Your task to perform on an android device: Open Google Image 0: 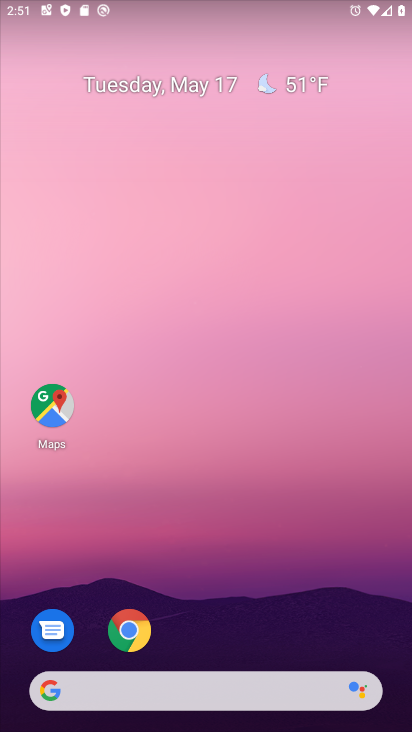
Step 0: drag from (213, 597) to (280, 166)
Your task to perform on an android device: Open Google Image 1: 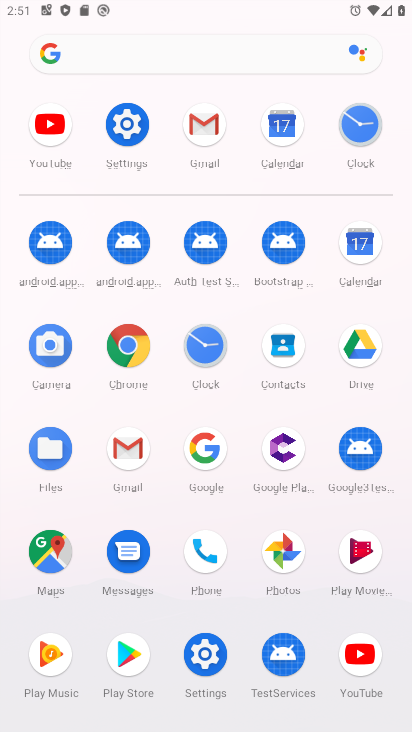
Step 1: click (207, 453)
Your task to perform on an android device: Open Google Image 2: 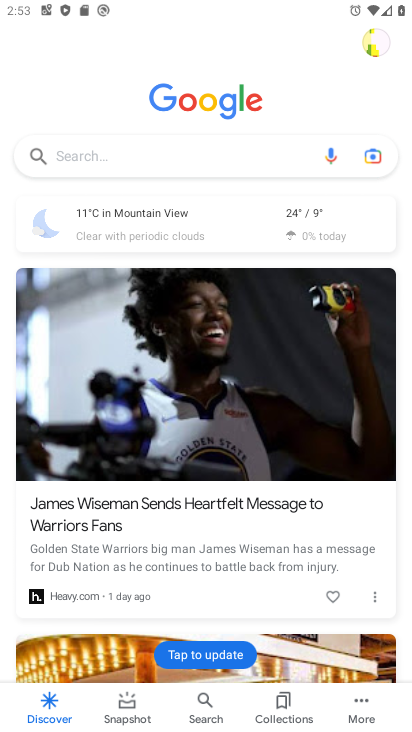
Step 2: task complete